Your task to perform on an android device: Go to battery settings Image 0: 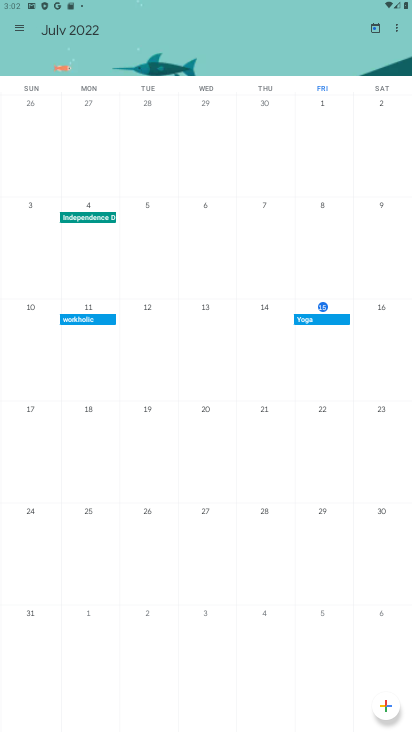
Step 0: press home button
Your task to perform on an android device: Go to battery settings Image 1: 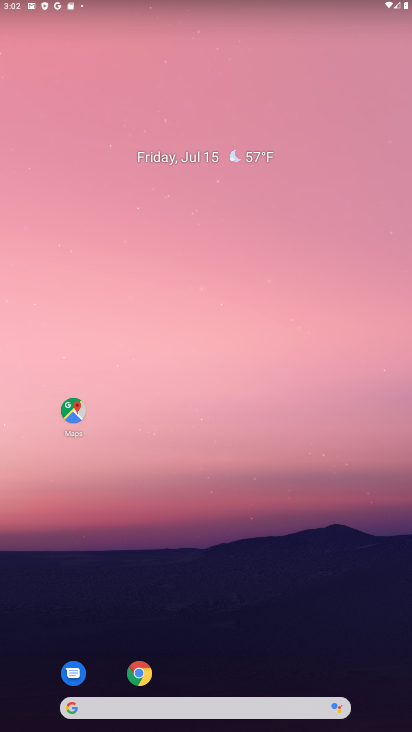
Step 1: drag from (211, 634) to (202, 275)
Your task to perform on an android device: Go to battery settings Image 2: 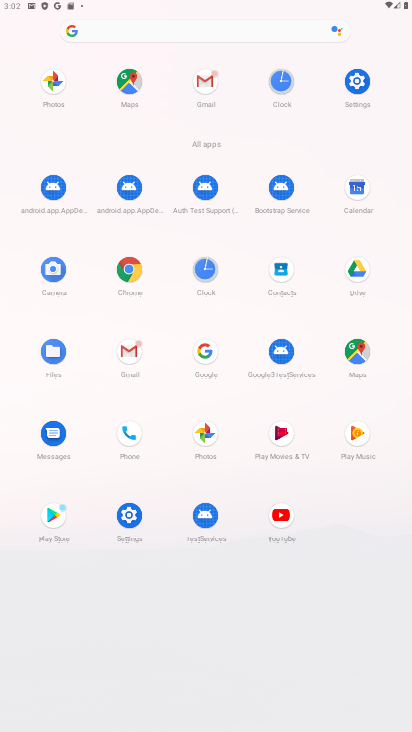
Step 2: click (358, 76)
Your task to perform on an android device: Go to battery settings Image 3: 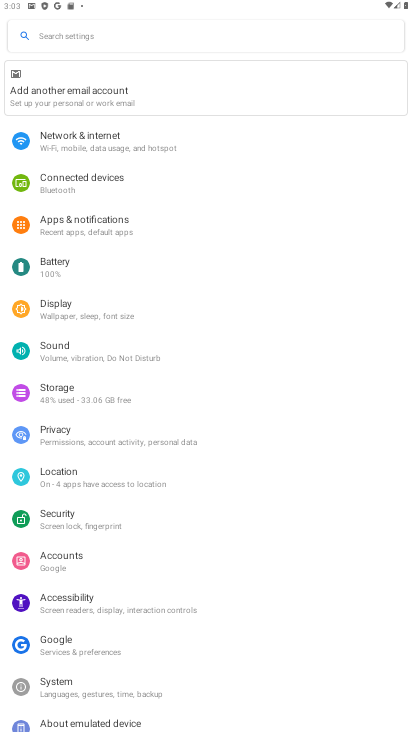
Step 3: click (56, 282)
Your task to perform on an android device: Go to battery settings Image 4: 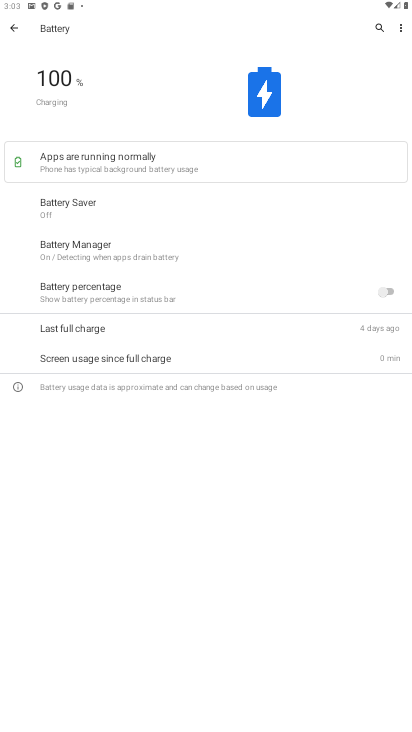
Step 4: task complete